Your task to perform on an android device: Show me popular videos on Youtube Image 0: 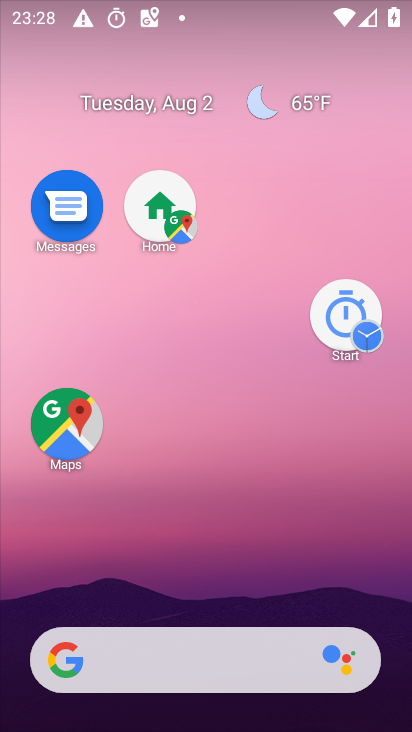
Step 0: press back button
Your task to perform on an android device: Show me popular videos on Youtube Image 1: 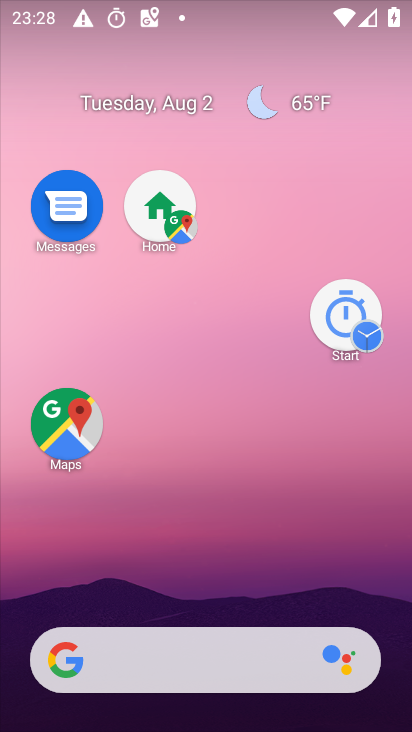
Step 1: drag from (194, 550) to (149, 237)
Your task to perform on an android device: Show me popular videos on Youtube Image 2: 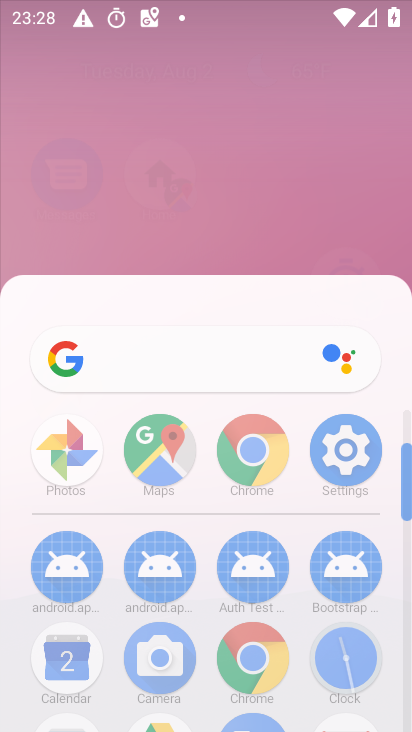
Step 2: drag from (255, 462) to (241, 320)
Your task to perform on an android device: Show me popular videos on Youtube Image 3: 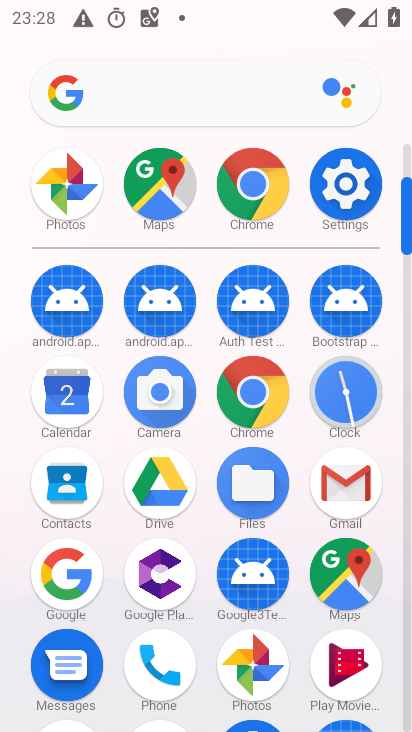
Step 3: drag from (237, 460) to (198, 267)
Your task to perform on an android device: Show me popular videos on Youtube Image 4: 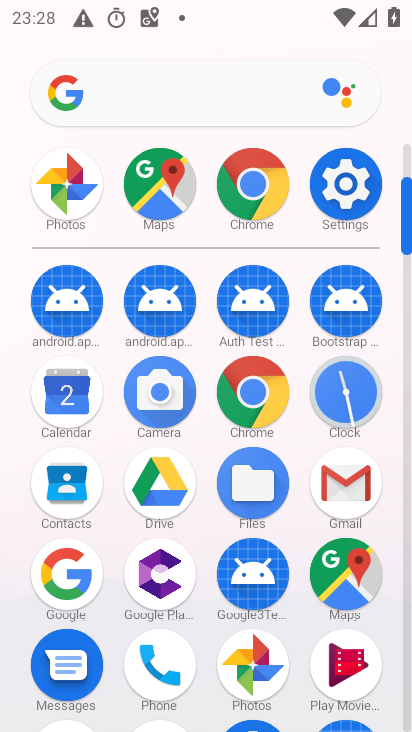
Step 4: drag from (304, 505) to (299, 247)
Your task to perform on an android device: Show me popular videos on Youtube Image 5: 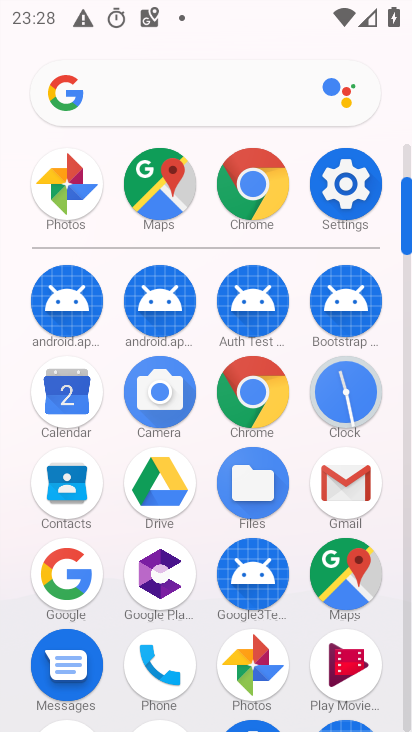
Step 5: drag from (301, 274) to (303, 117)
Your task to perform on an android device: Show me popular videos on Youtube Image 6: 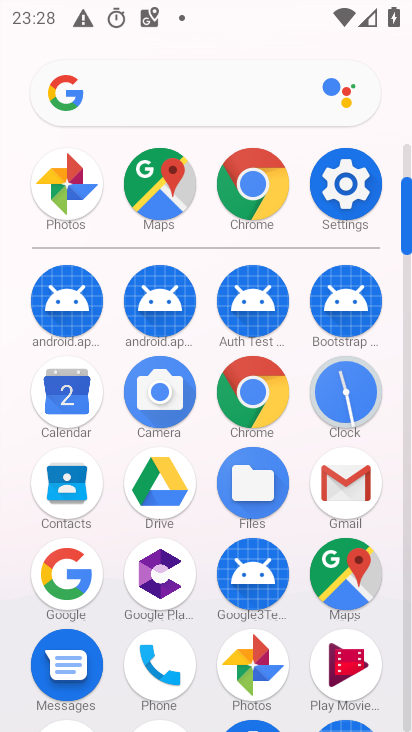
Step 6: drag from (306, 325) to (319, 151)
Your task to perform on an android device: Show me popular videos on Youtube Image 7: 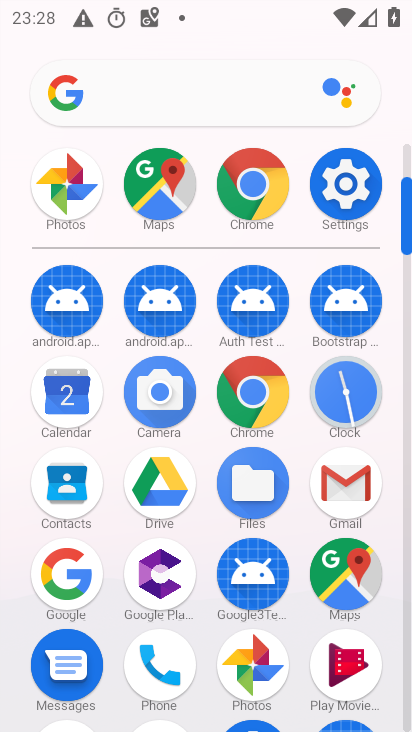
Step 7: drag from (173, 410) to (188, 273)
Your task to perform on an android device: Show me popular videos on Youtube Image 8: 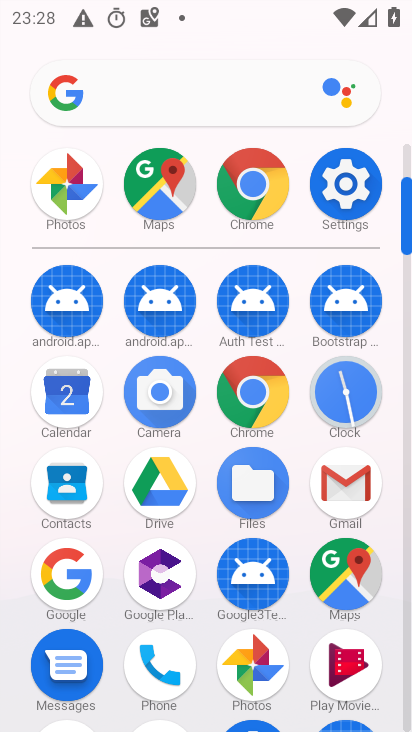
Step 8: drag from (213, 445) to (213, 305)
Your task to perform on an android device: Show me popular videos on Youtube Image 9: 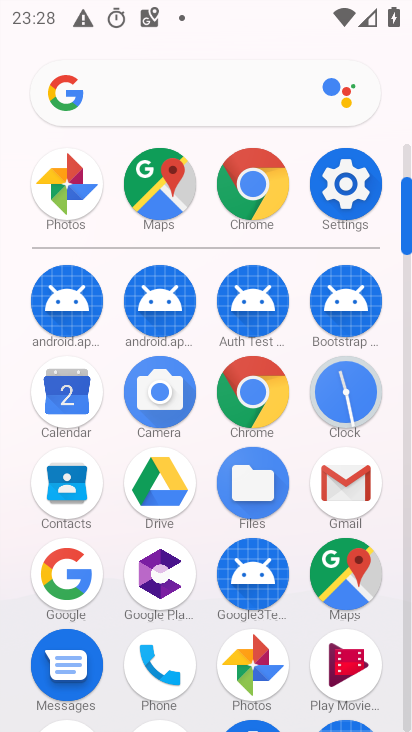
Step 9: drag from (261, 212) to (274, 144)
Your task to perform on an android device: Show me popular videos on Youtube Image 10: 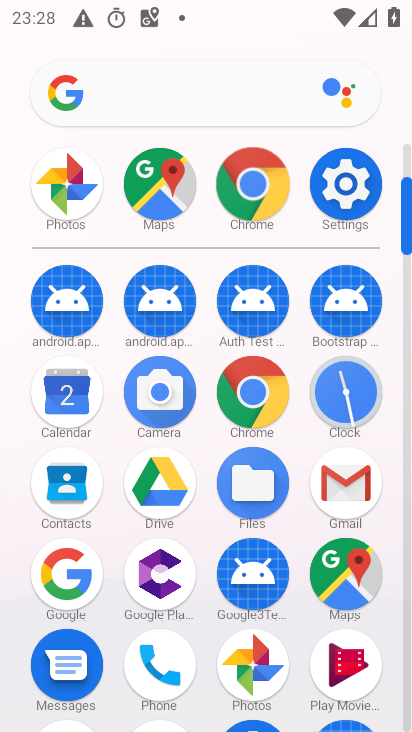
Step 10: drag from (300, 374) to (237, 274)
Your task to perform on an android device: Show me popular videos on Youtube Image 11: 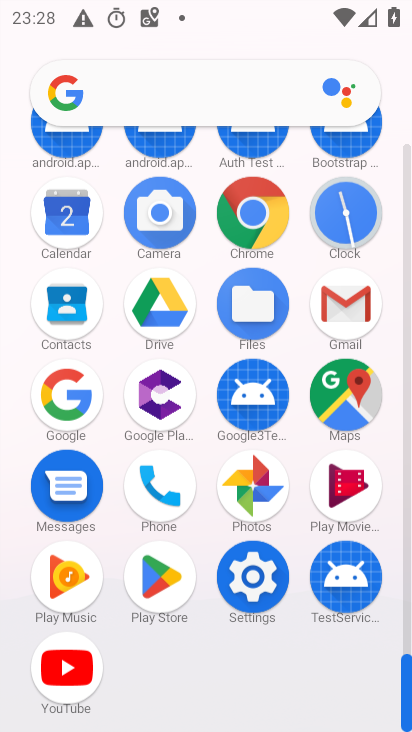
Step 11: drag from (195, 597) to (195, 248)
Your task to perform on an android device: Show me popular videos on Youtube Image 12: 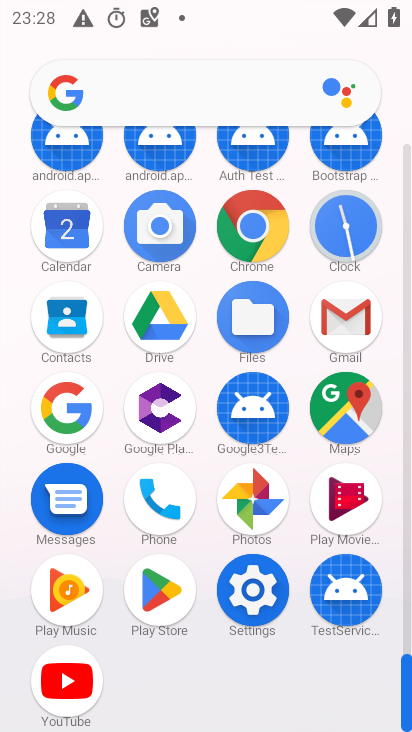
Step 12: drag from (218, 605) to (250, 200)
Your task to perform on an android device: Show me popular videos on Youtube Image 13: 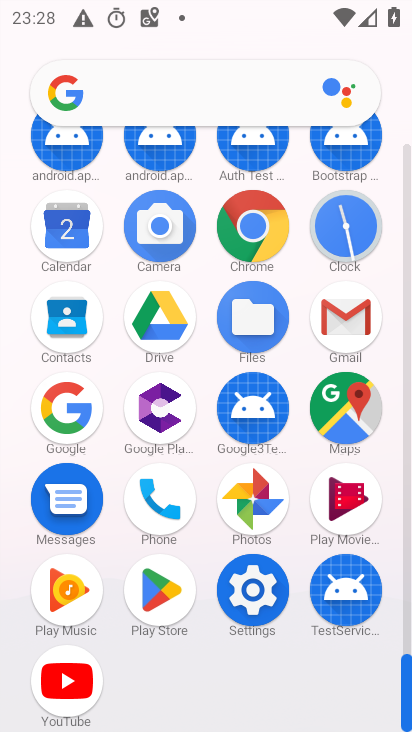
Step 13: click (67, 672)
Your task to perform on an android device: Show me popular videos on Youtube Image 14: 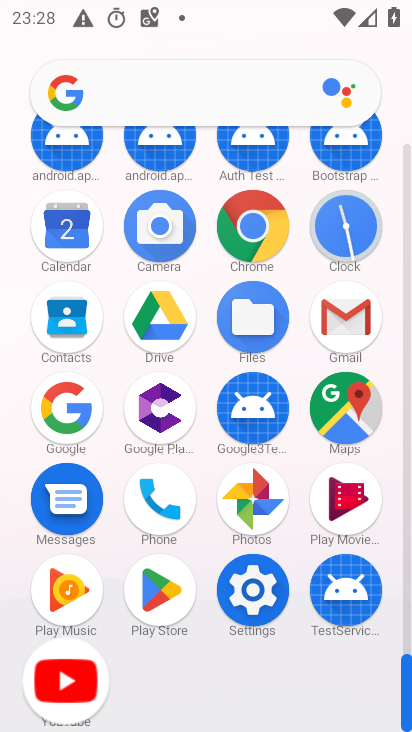
Step 14: click (66, 673)
Your task to perform on an android device: Show me popular videos on Youtube Image 15: 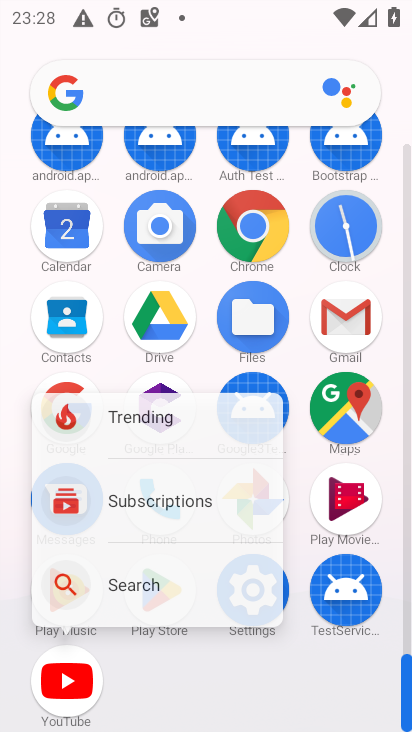
Step 15: click (67, 675)
Your task to perform on an android device: Show me popular videos on Youtube Image 16: 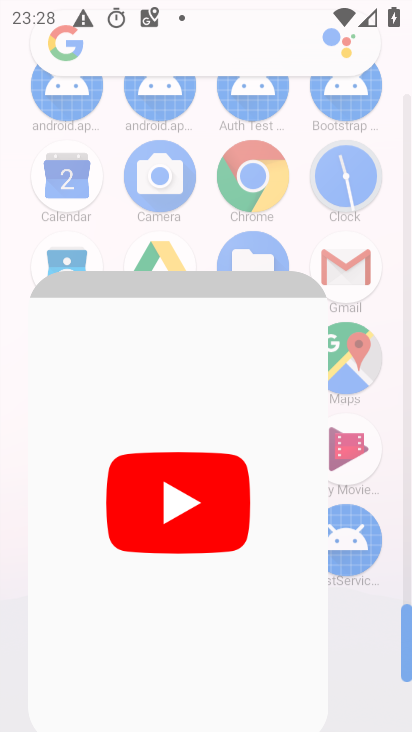
Step 16: click (49, 674)
Your task to perform on an android device: Show me popular videos on Youtube Image 17: 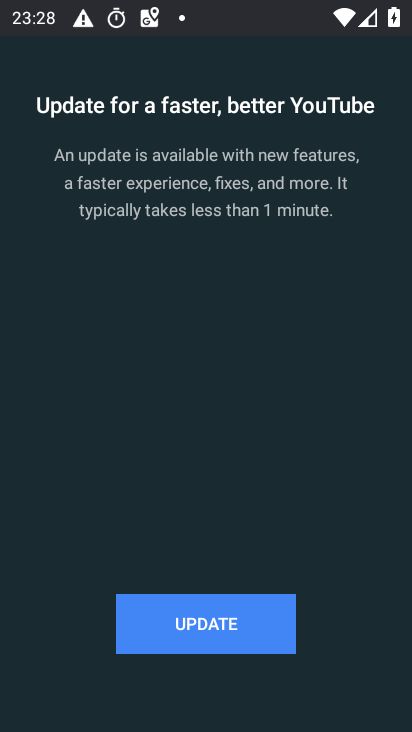
Step 17: click (232, 609)
Your task to perform on an android device: Show me popular videos on Youtube Image 18: 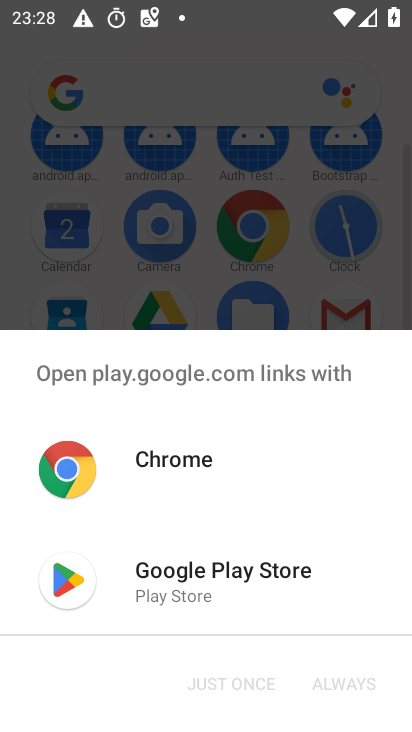
Step 18: click (159, 454)
Your task to perform on an android device: Show me popular videos on Youtube Image 19: 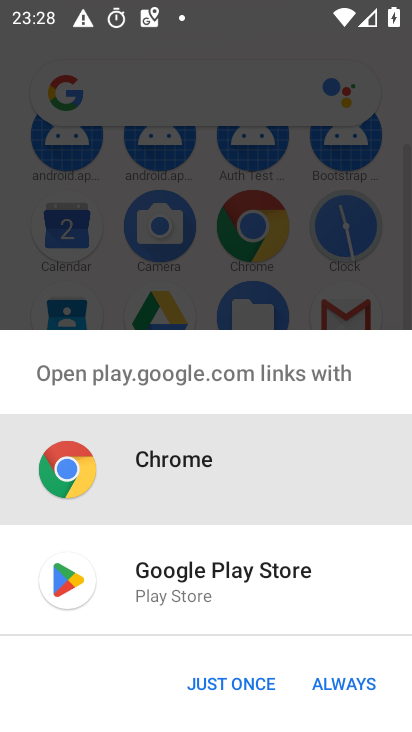
Step 19: click (347, 683)
Your task to perform on an android device: Show me popular videos on Youtube Image 20: 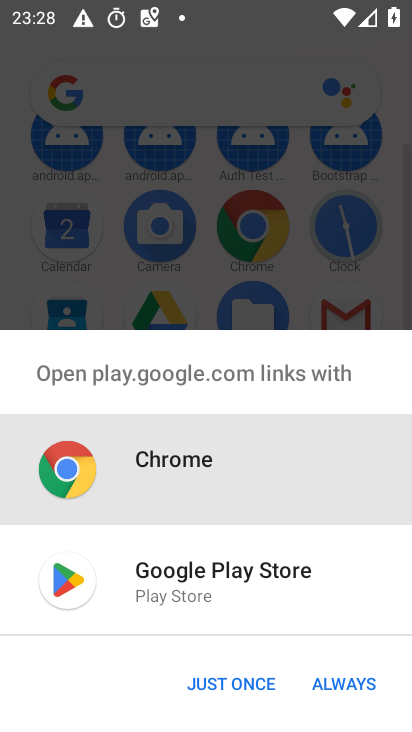
Step 20: click (349, 682)
Your task to perform on an android device: Show me popular videos on Youtube Image 21: 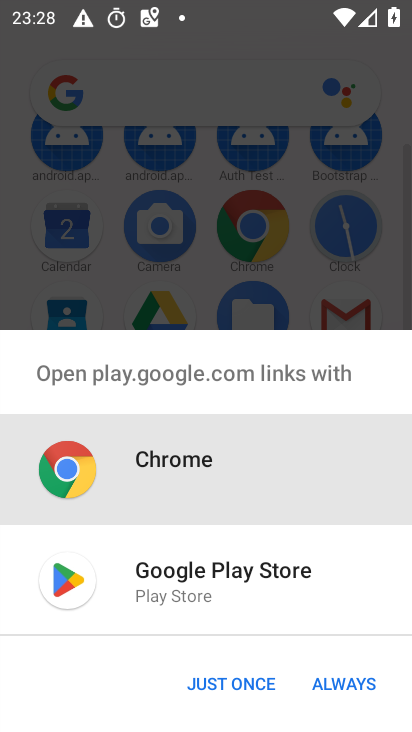
Step 21: click (350, 683)
Your task to perform on an android device: Show me popular videos on Youtube Image 22: 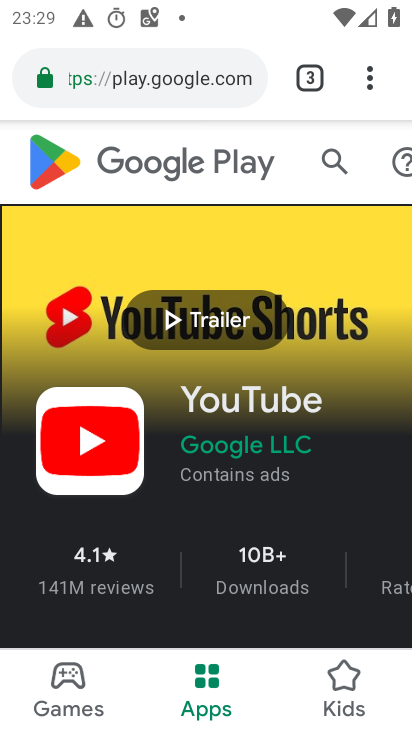
Step 22: click (337, 150)
Your task to perform on an android device: Show me popular videos on Youtube Image 23: 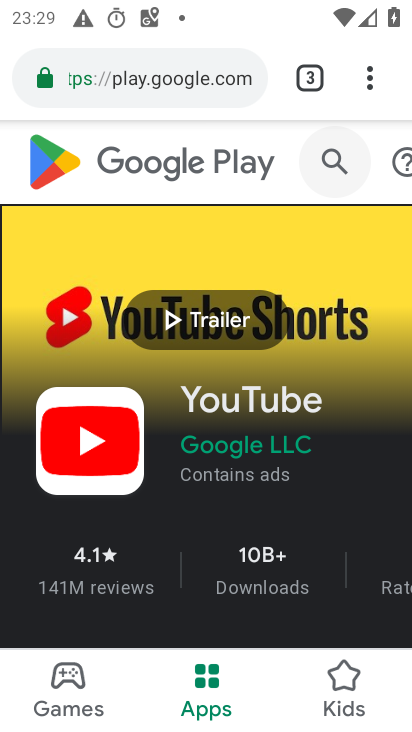
Step 23: click (337, 161)
Your task to perform on an android device: Show me popular videos on Youtube Image 24: 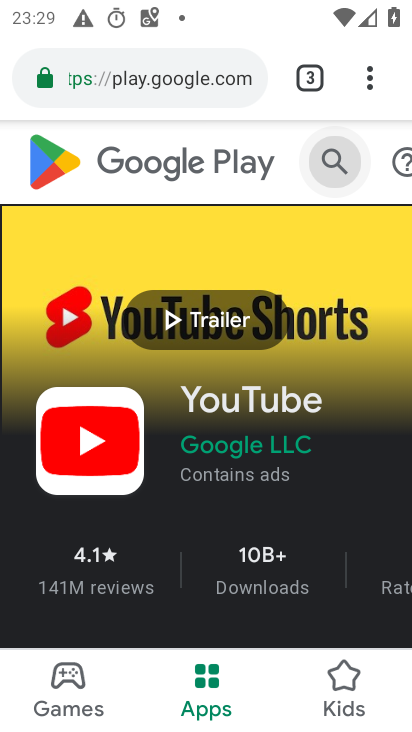
Step 24: click (338, 162)
Your task to perform on an android device: Show me popular videos on Youtube Image 25: 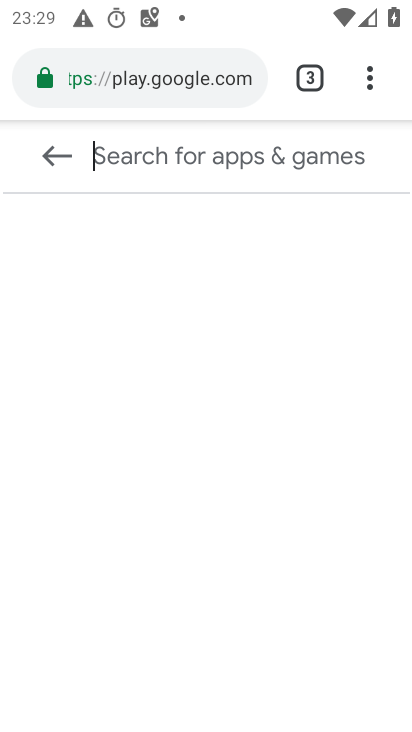
Step 25: click (336, 148)
Your task to perform on an android device: Show me popular videos on Youtube Image 26: 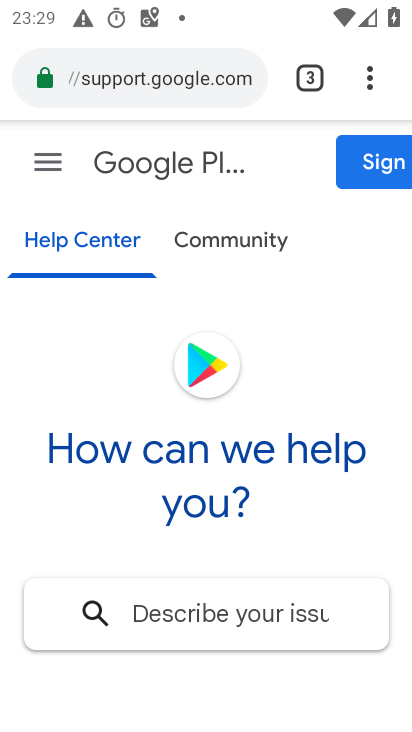
Step 26: type "popular videos"
Your task to perform on an android device: Show me popular videos on Youtube Image 27: 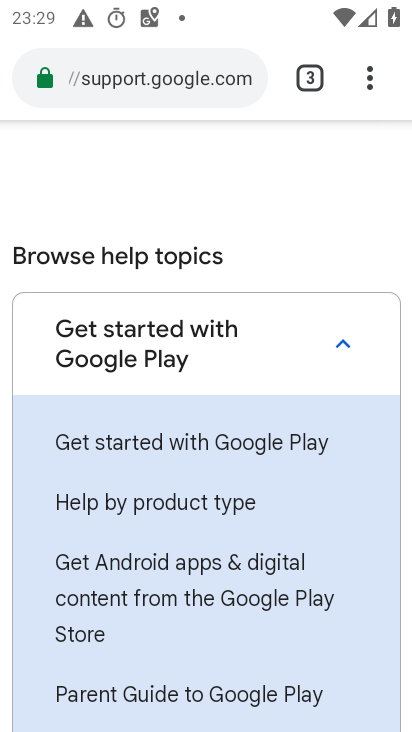
Step 27: task complete